Your task to perform on an android device: manage bookmarks in the chrome app Image 0: 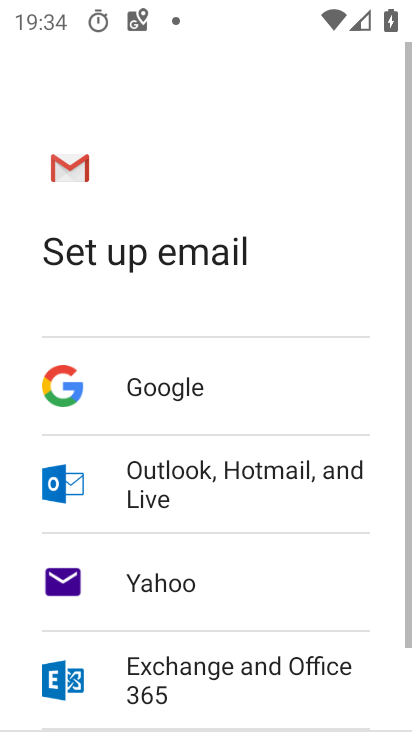
Step 0: press home button
Your task to perform on an android device: manage bookmarks in the chrome app Image 1: 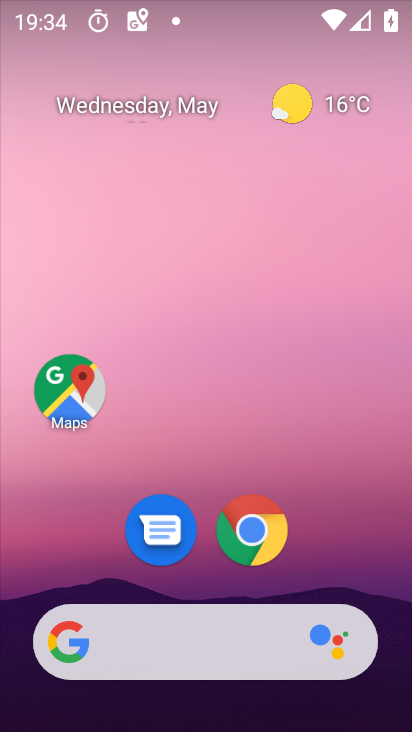
Step 1: drag from (213, 571) to (271, 289)
Your task to perform on an android device: manage bookmarks in the chrome app Image 2: 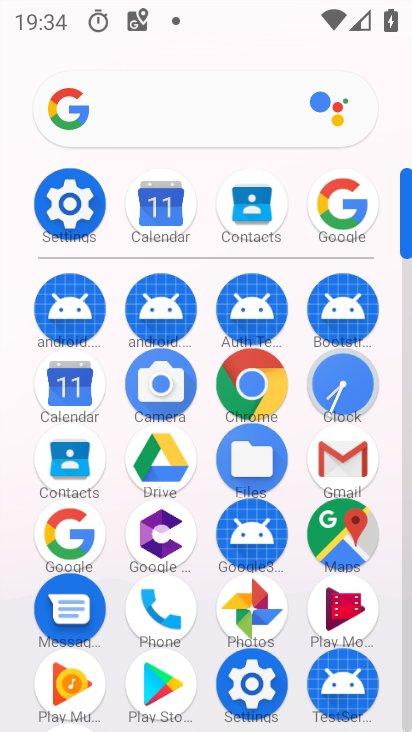
Step 2: click (252, 370)
Your task to perform on an android device: manage bookmarks in the chrome app Image 3: 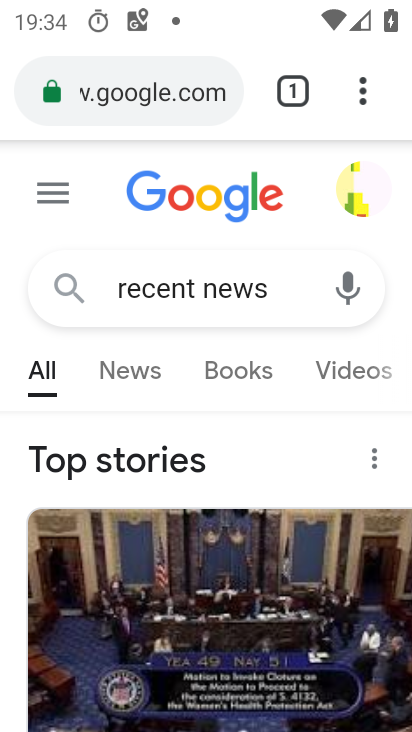
Step 3: click (365, 95)
Your task to perform on an android device: manage bookmarks in the chrome app Image 4: 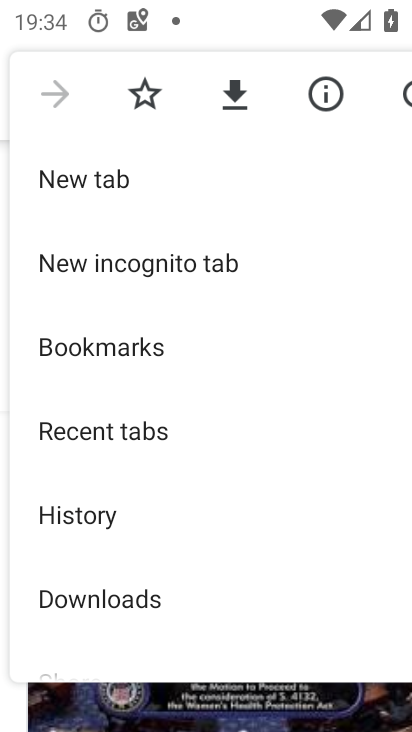
Step 4: click (132, 353)
Your task to perform on an android device: manage bookmarks in the chrome app Image 5: 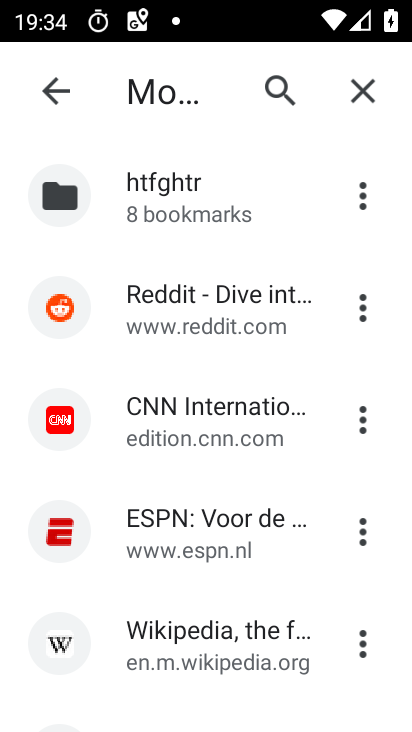
Step 5: drag from (119, 585) to (212, 147)
Your task to perform on an android device: manage bookmarks in the chrome app Image 6: 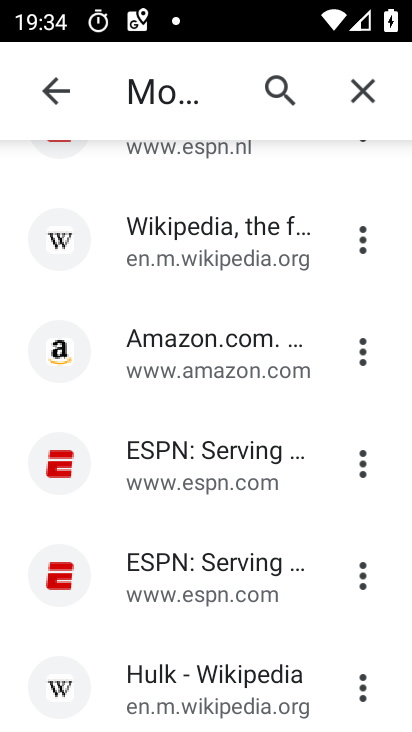
Step 6: drag from (215, 594) to (288, 165)
Your task to perform on an android device: manage bookmarks in the chrome app Image 7: 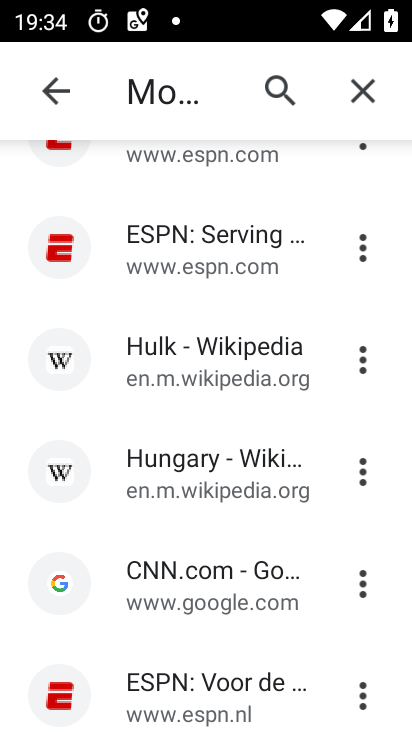
Step 7: click (364, 692)
Your task to perform on an android device: manage bookmarks in the chrome app Image 8: 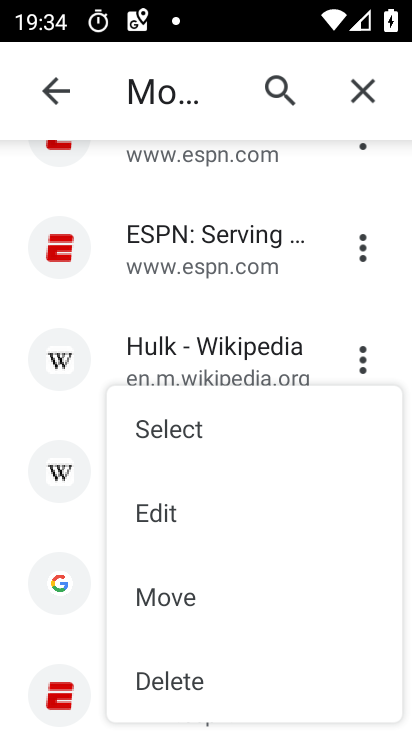
Step 8: click (180, 525)
Your task to perform on an android device: manage bookmarks in the chrome app Image 9: 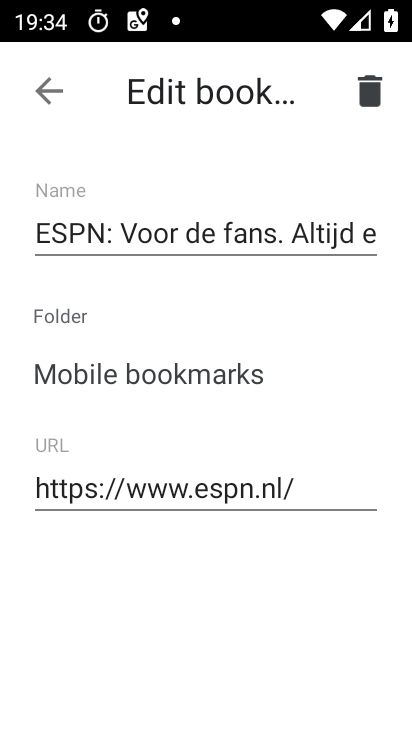
Step 9: click (36, 75)
Your task to perform on an android device: manage bookmarks in the chrome app Image 10: 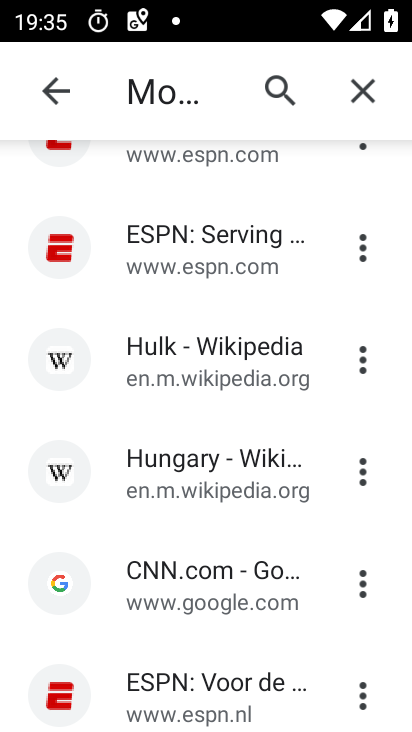
Step 10: task complete